Your task to perform on an android device: Open location settings Image 0: 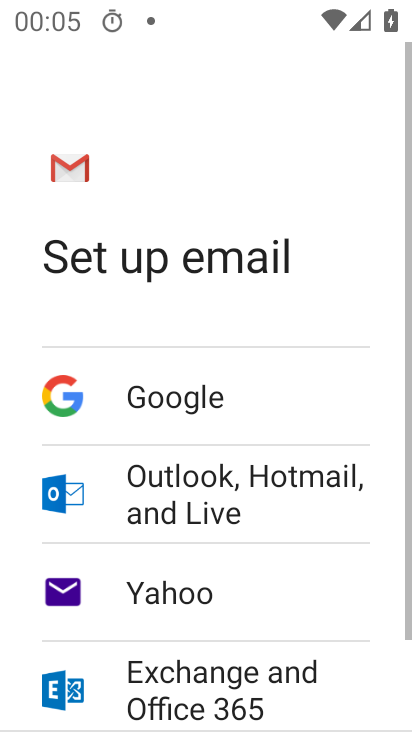
Step 0: press home button
Your task to perform on an android device: Open location settings Image 1: 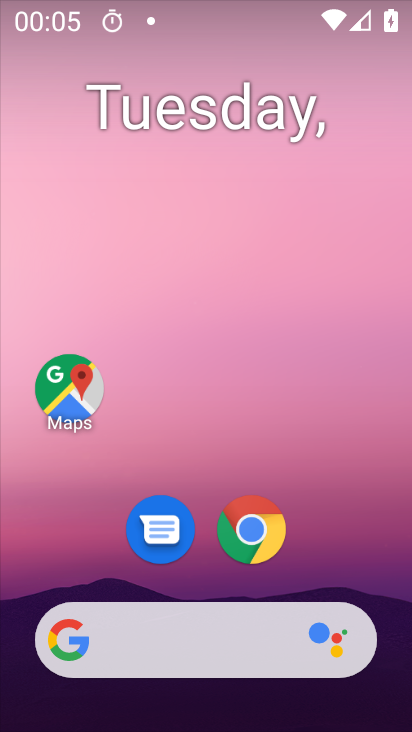
Step 1: drag from (291, 573) to (287, 253)
Your task to perform on an android device: Open location settings Image 2: 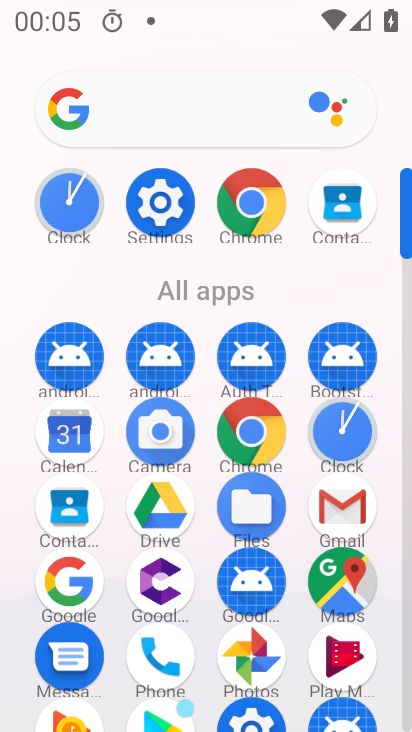
Step 2: click (162, 168)
Your task to perform on an android device: Open location settings Image 3: 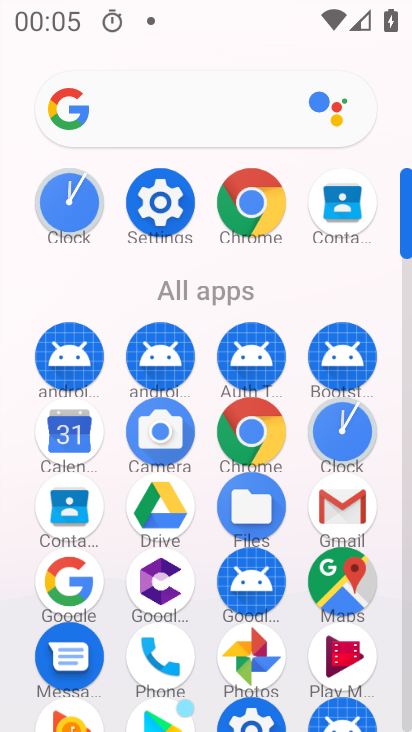
Step 3: click (175, 208)
Your task to perform on an android device: Open location settings Image 4: 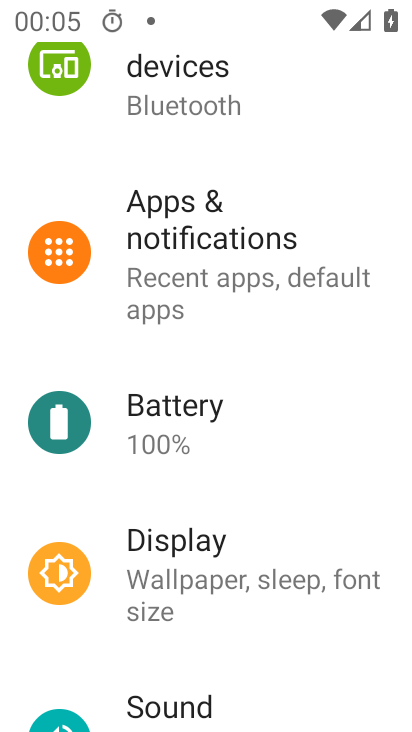
Step 4: drag from (247, 511) to (264, 1)
Your task to perform on an android device: Open location settings Image 5: 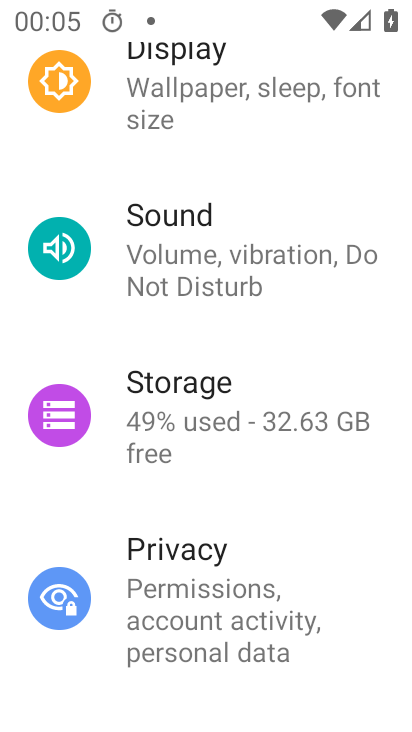
Step 5: drag from (260, 528) to (250, 194)
Your task to perform on an android device: Open location settings Image 6: 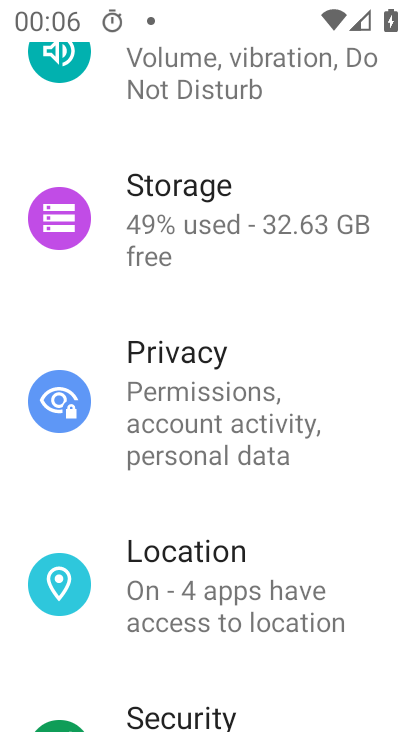
Step 6: drag from (164, 507) to (288, 160)
Your task to perform on an android device: Open location settings Image 7: 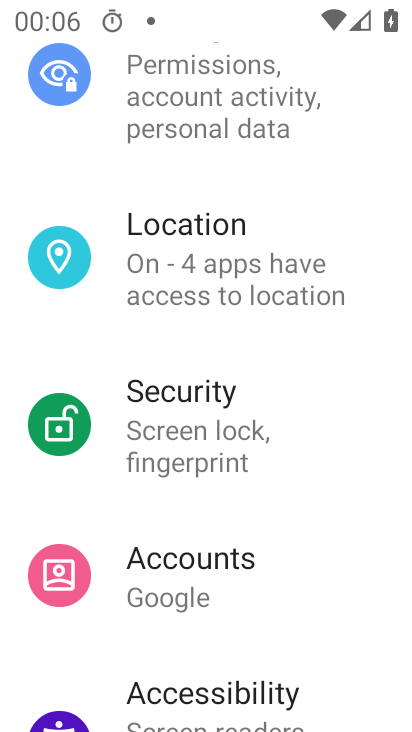
Step 7: click (280, 316)
Your task to perform on an android device: Open location settings Image 8: 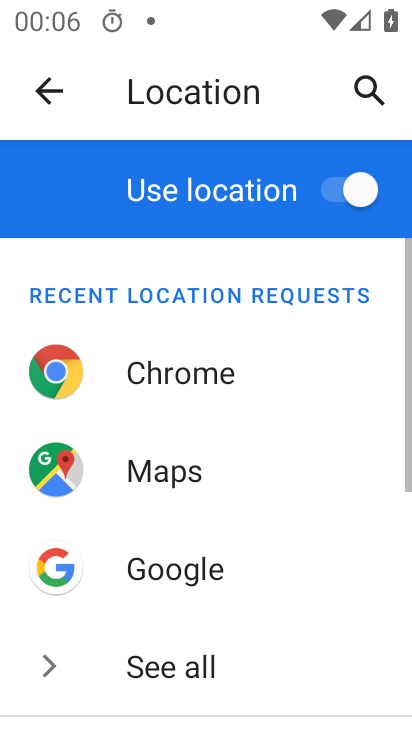
Step 8: task complete